Your task to perform on an android device: Open the phone app and click the voicemail tab. Image 0: 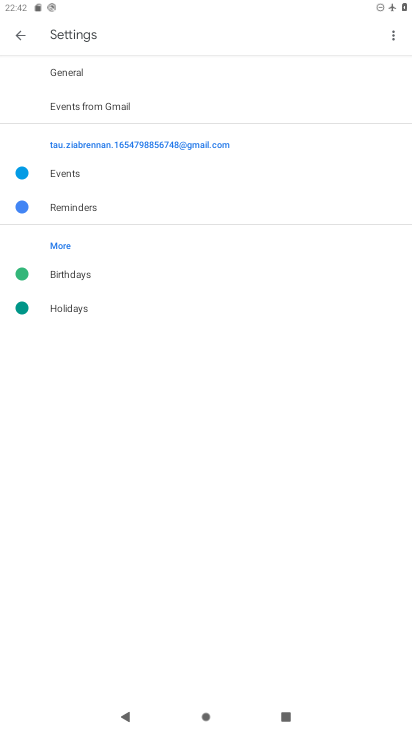
Step 0: press home button
Your task to perform on an android device: Open the phone app and click the voicemail tab. Image 1: 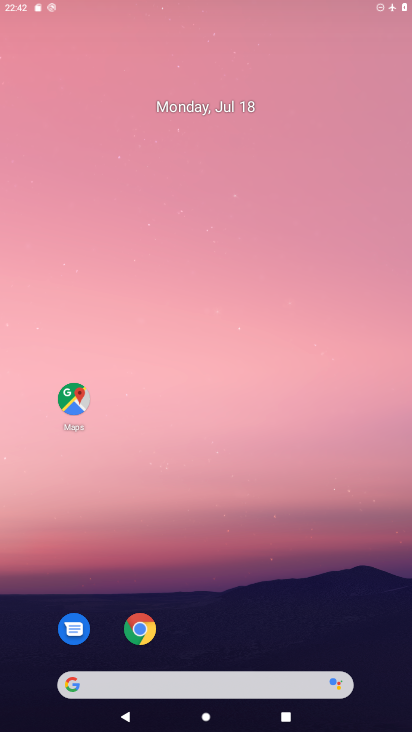
Step 1: drag from (298, 619) to (211, 85)
Your task to perform on an android device: Open the phone app and click the voicemail tab. Image 2: 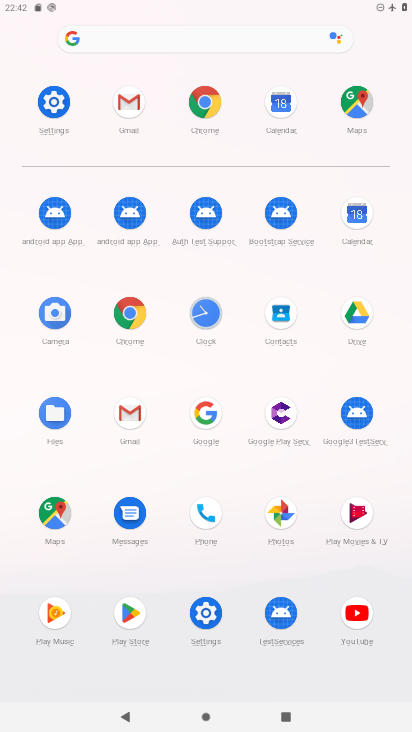
Step 2: click (210, 514)
Your task to perform on an android device: Open the phone app and click the voicemail tab. Image 3: 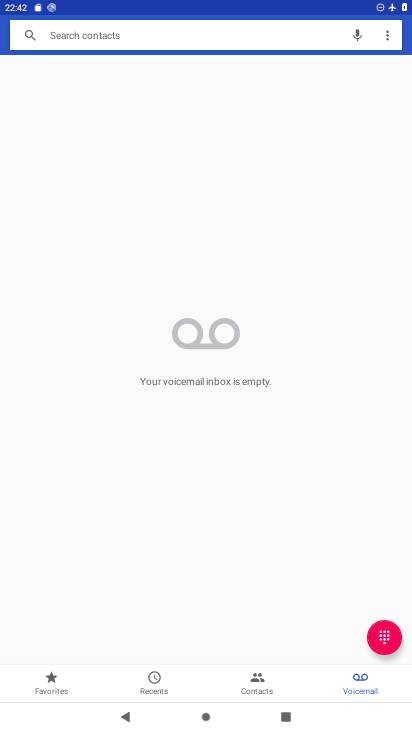
Step 3: click (360, 686)
Your task to perform on an android device: Open the phone app and click the voicemail tab. Image 4: 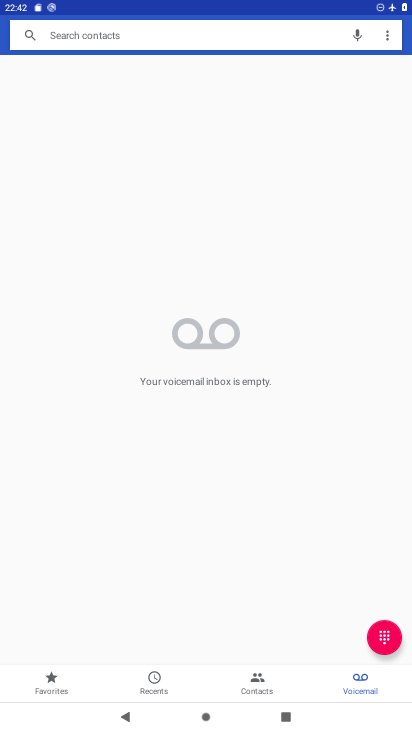
Step 4: task complete